Your task to perform on an android device: check storage Image 0: 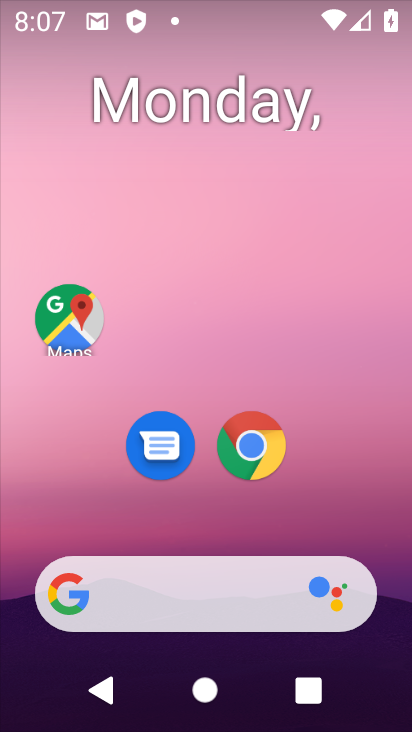
Step 0: click (141, 54)
Your task to perform on an android device: check storage Image 1: 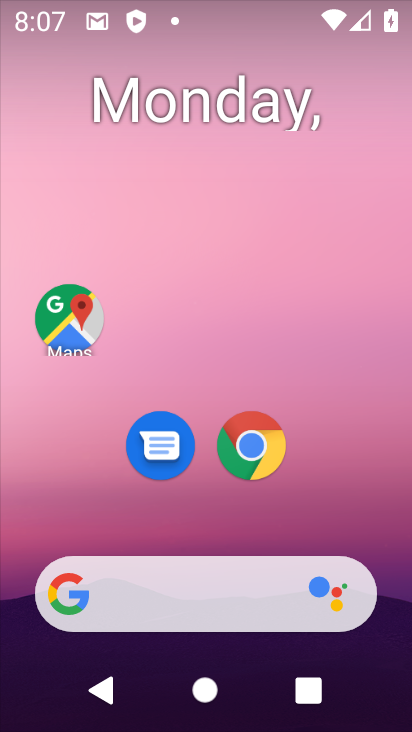
Step 1: drag from (267, 694) to (315, 1)
Your task to perform on an android device: check storage Image 2: 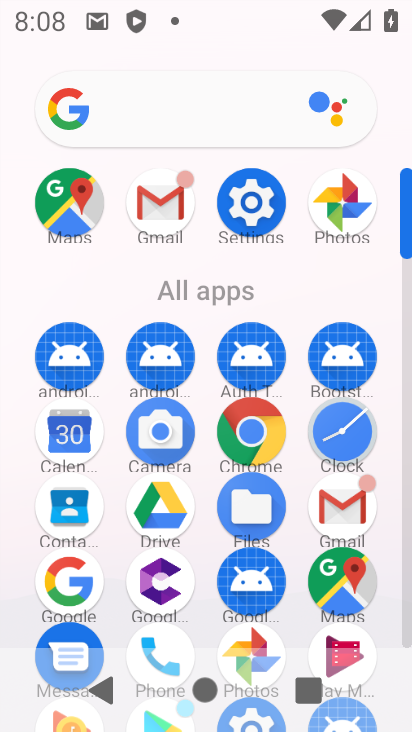
Step 2: click (268, 192)
Your task to perform on an android device: check storage Image 3: 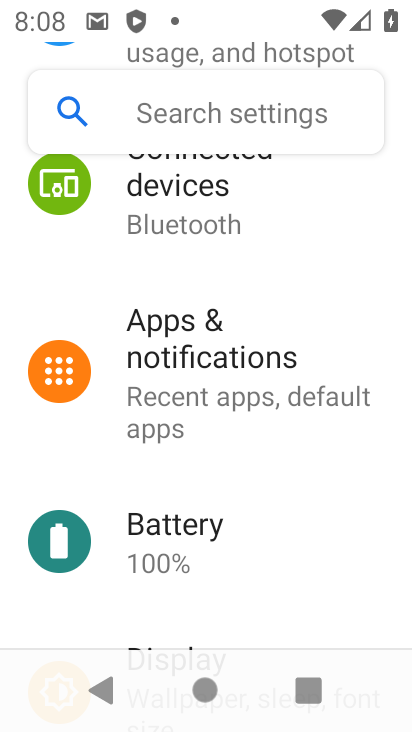
Step 3: drag from (316, 241) to (269, 584)
Your task to perform on an android device: check storage Image 4: 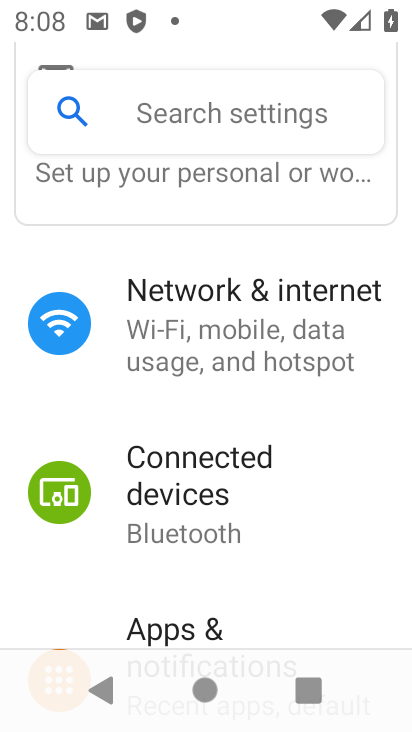
Step 4: drag from (298, 573) to (229, 103)
Your task to perform on an android device: check storage Image 5: 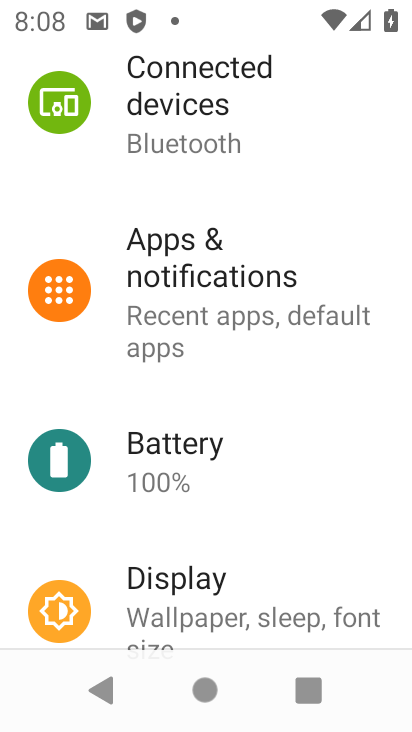
Step 5: drag from (302, 506) to (207, 27)
Your task to perform on an android device: check storage Image 6: 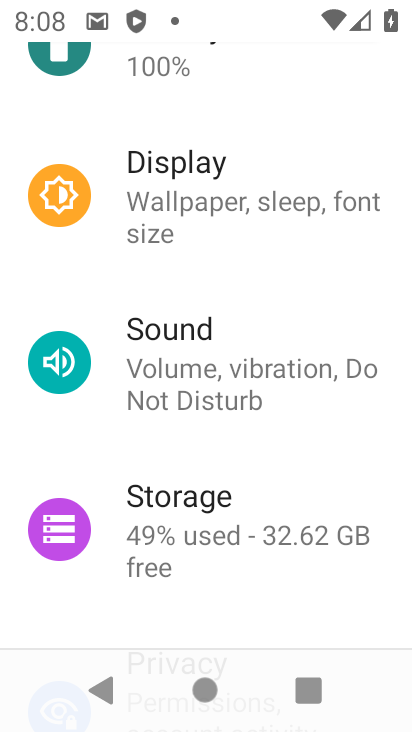
Step 6: click (256, 513)
Your task to perform on an android device: check storage Image 7: 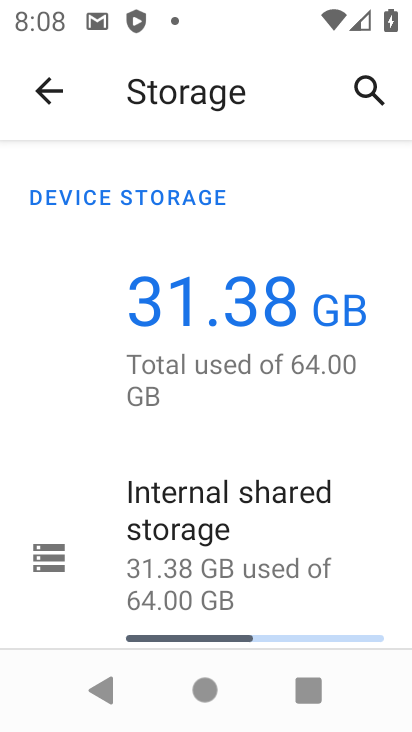
Step 7: task complete